Your task to perform on an android device: Search for Mexican restaurants on Maps Image 0: 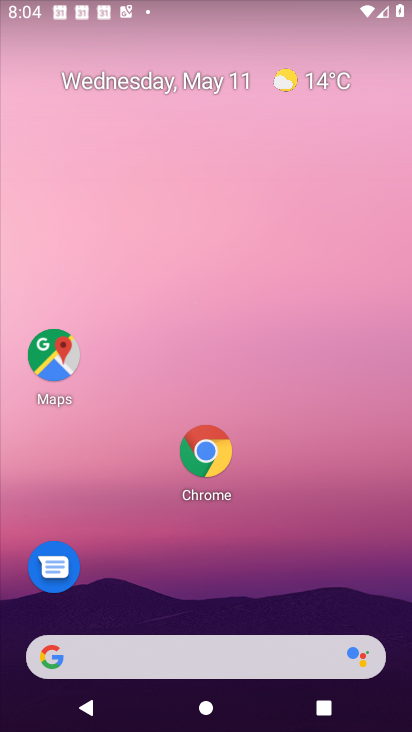
Step 0: click (56, 363)
Your task to perform on an android device: Search for Mexican restaurants on Maps Image 1: 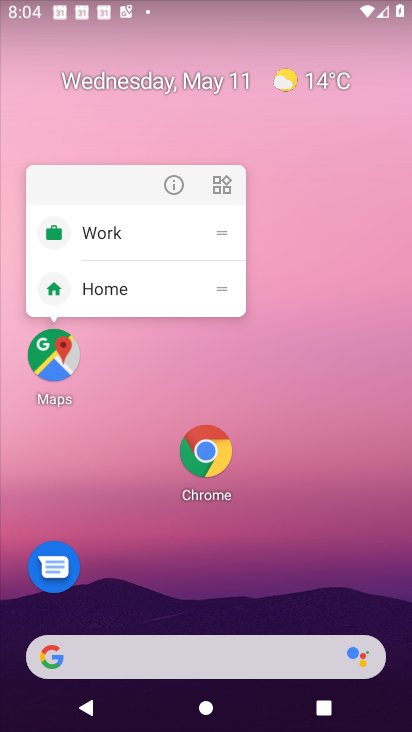
Step 1: click (54, 363)
Your task to perform on an android device: Search for Mexican restaurants on Maps Image 2: 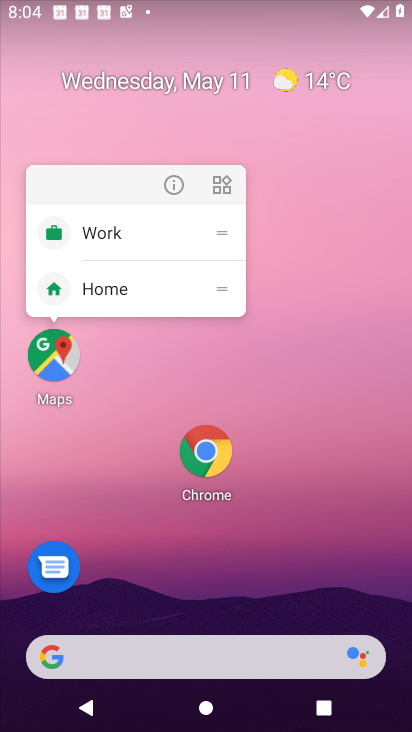
Step 2: click (49, 375)
Your task to perform on an android device: Search for Mexican restaurants on Maps Image 3: 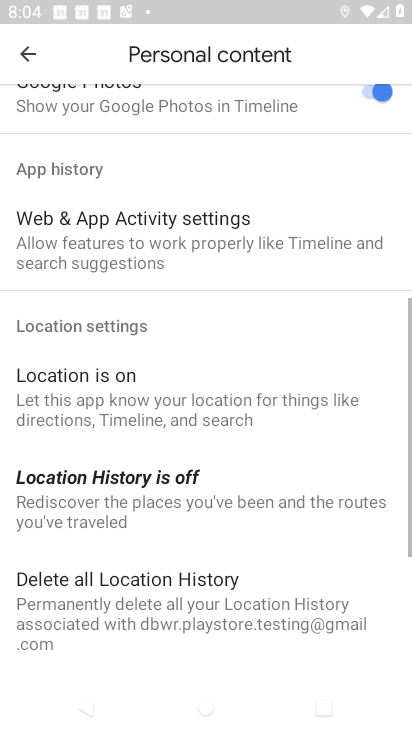
Step 3: click (21, 58)
Your task to perform on an android device: Search for Mexican restaurants on Maps Image 4: 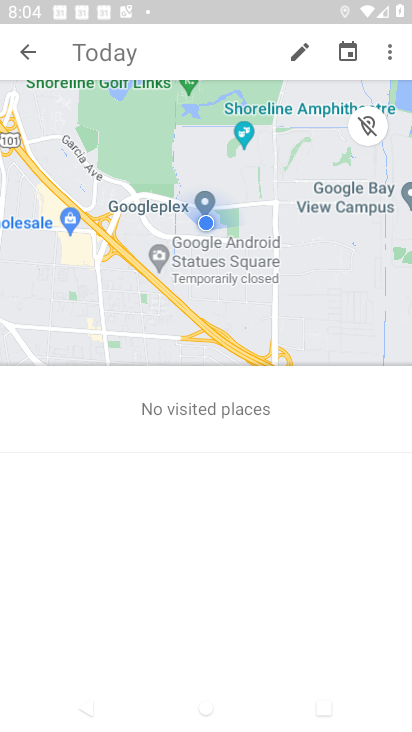
Step 4: click (28, 57)
Your task to perform on an android device: Search for Mexican restaurants on Maps Image 5: 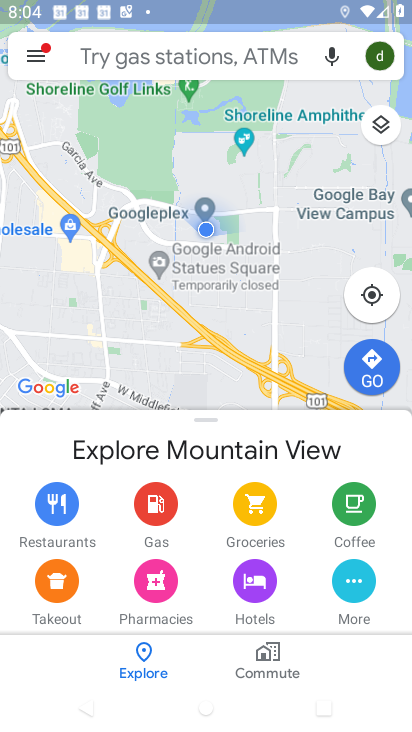
Step 5: click (159, 56)
Your task to perform on an android device: Search for Mexican restaurants on Maps Image 6: 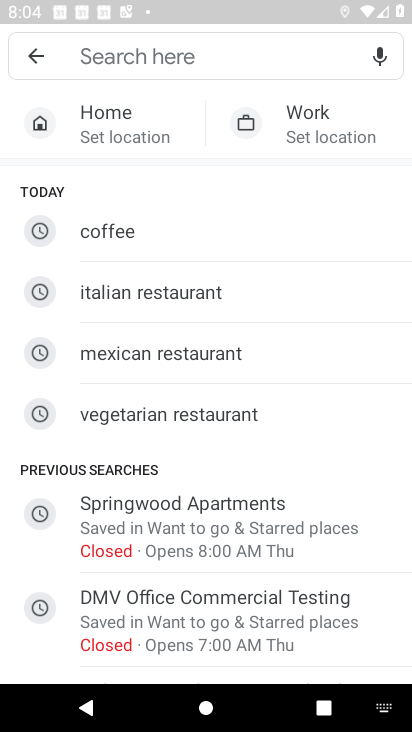
Step 6: click (190, 349)
Your task to perform on an android device: Search for Mexican restaurants on Maps Image 7: 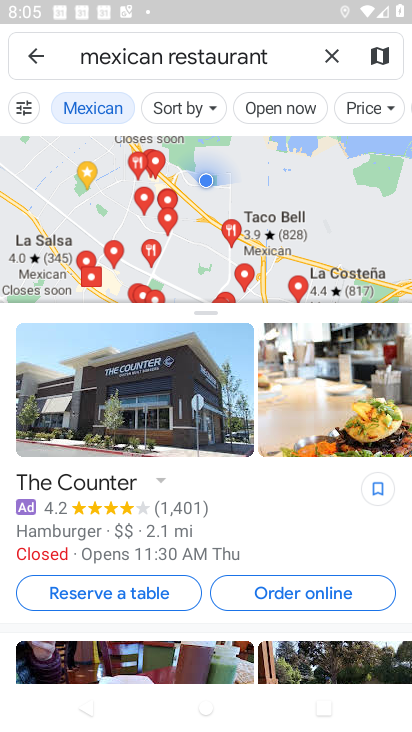
Step 7: task complete